Your task to perform on an android device: Open display settings Image 0: 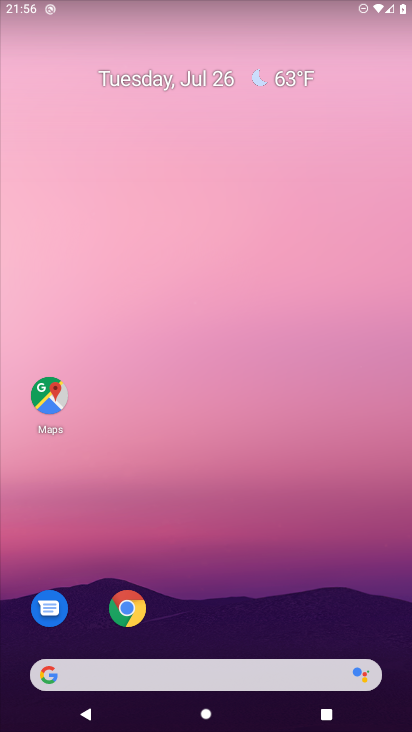
Step 0: drag from (31, 690) to (315, 65)
Your task to perform on an android device: Open display settings Image 1: 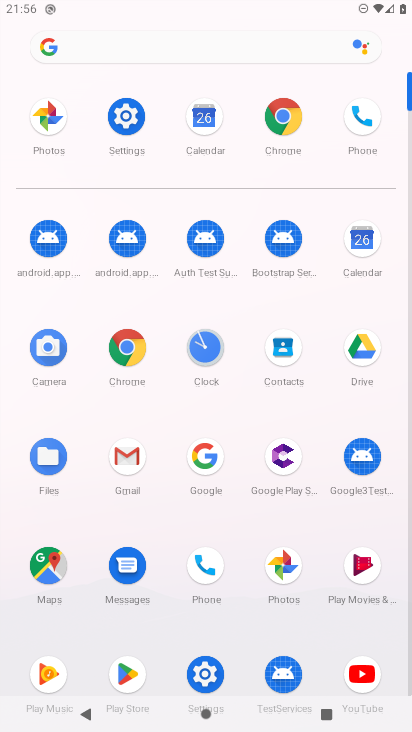
Step 1: click (210, 670)
Your task to perform on an android device: Open display settings Image 2: 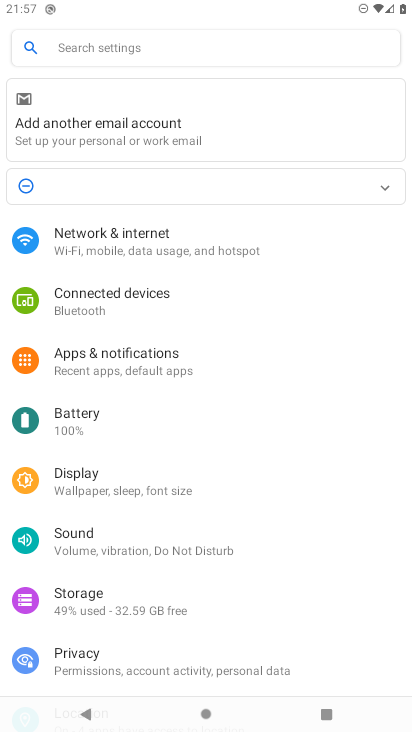
Step 2: click (76, 479)
Your task to perform on an android device: Open display settings Image 3: 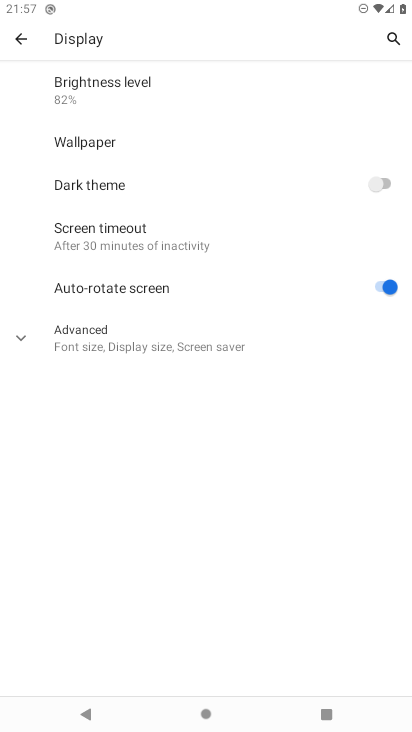
Step 3: task complete